Your task to perform on an android device: move an email to a new category in the gmail app Image 0: 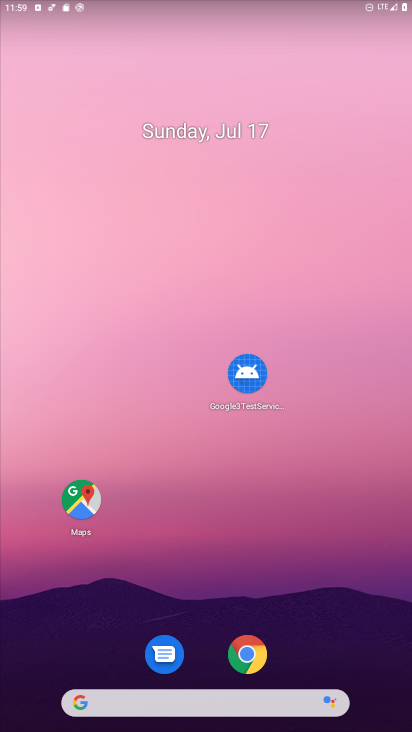
Step 0: drag from (186, 614) to (195, 219)
Your task to perform on an android device: move an email to a new category in the gmail app Image 1: 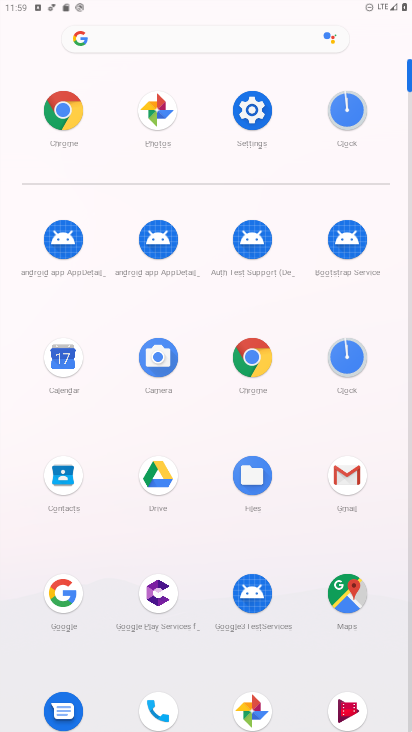
Step 1: click (340, 493)
Your task to perform on an android device: move an email to a new category in the gmail app Image 2: 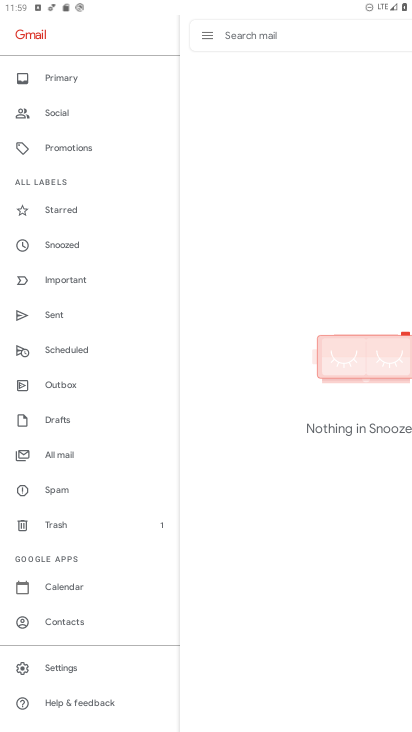
Step 2: click (47, 78)
Your task to perform on an android device: move an email to a new category in the gmail app Image 3: 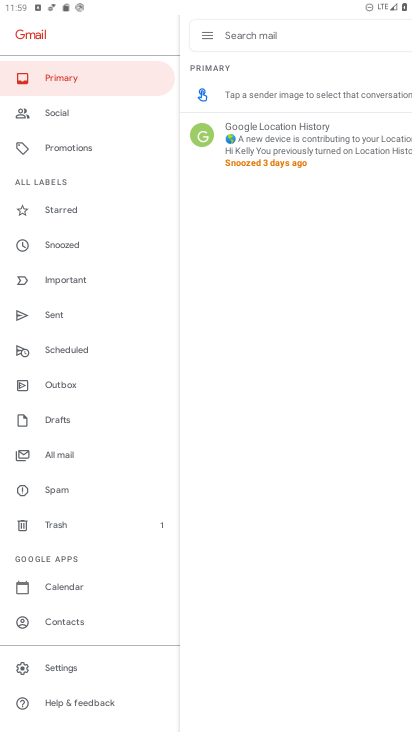
Step 3: click (311, 153)
Your task to perform on an android device: move an email to a new category in the gmail app Image 4: 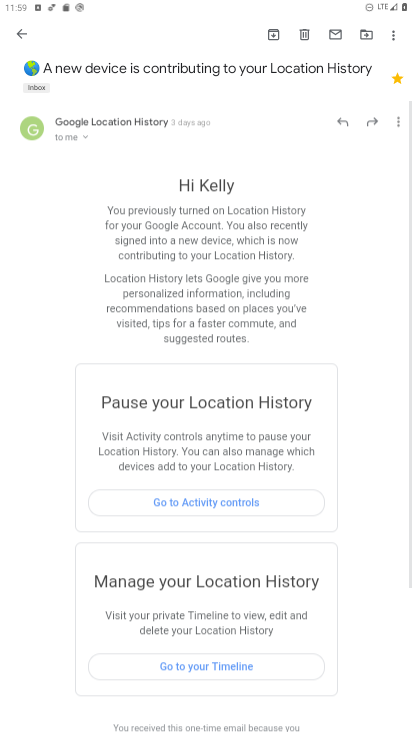
Step 4: click (391, 29)
Your task to perform on an android device: move an email to a new category in the gmail app Image 5: 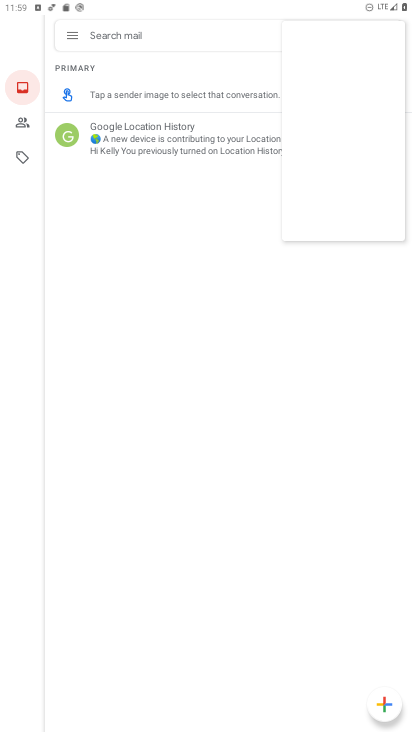
Step 5: click (104, 383)
Your task to perform on an android device: move an email to a new category in the gmail app Image 6: 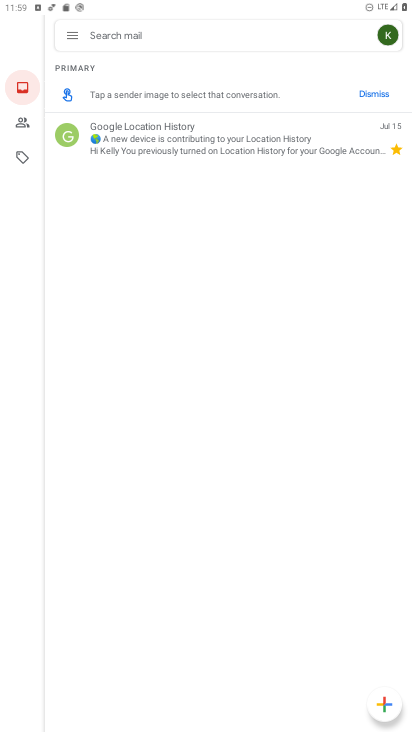
Step 6: click (184, 154)
Your task to perform on an android device: move an email to a new category in the gmail app Image 7: 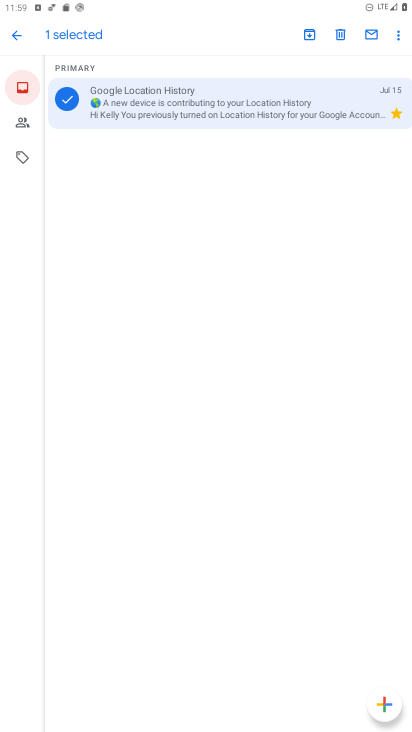
Step 7: click (398, 31)
Your task to perform on an android device: move an email to a new category in the gmail app Image 8: 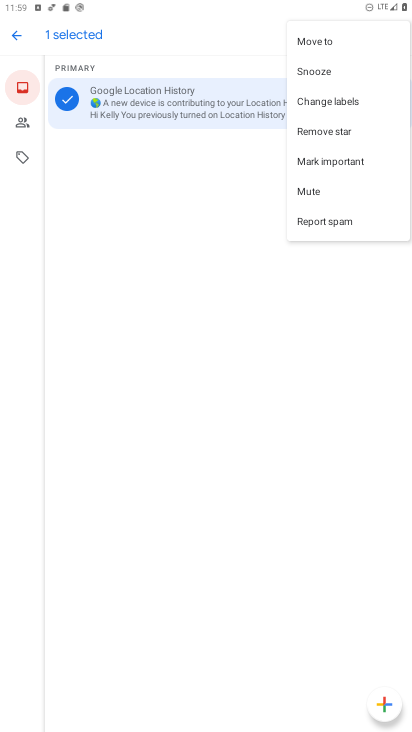
Step 8: click (324, 103)
Your task to perform on an android device: move an email to a new category in the gmail app Image 9: 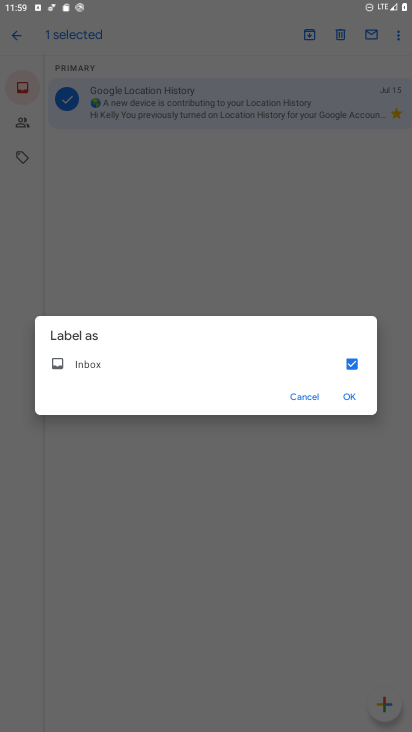
Step 9: click (343, 391)
Your task to perform on an android device: move an email to a new category in the gmail app Image 10: 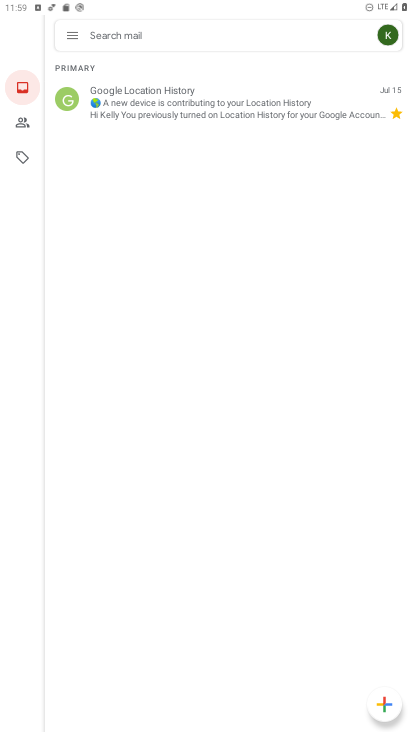
Step 10: task complete